Your task to perform on an android device: Open sound settings Image 0: 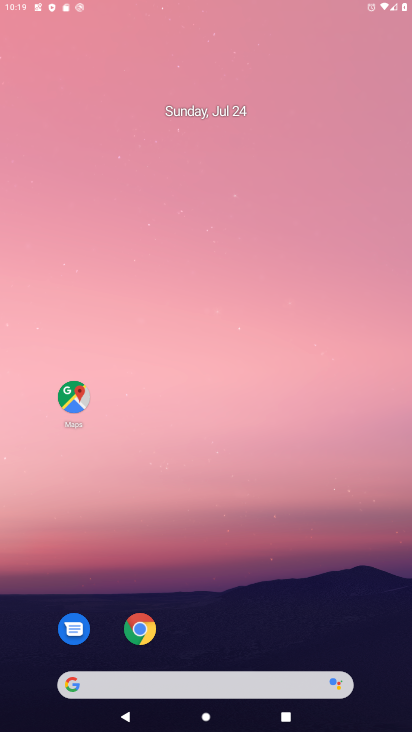
Step 0: press home button
Your task to perform on an android device: Open sound settings Image 1: 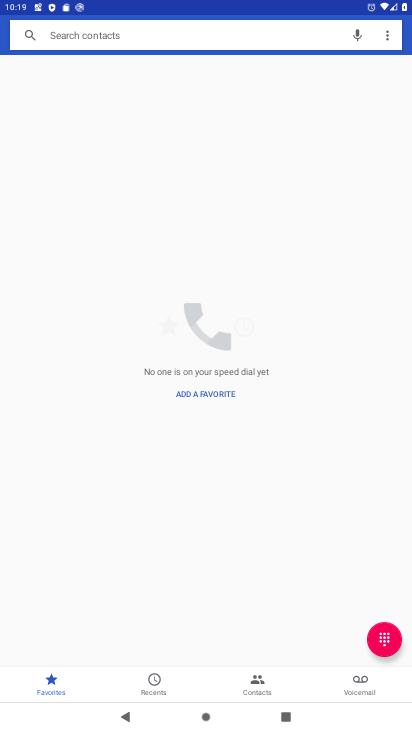
Step 1: drag from (393, 96) to (395, 403)
Your task to perform on an android device: Open sound settings Image 2: 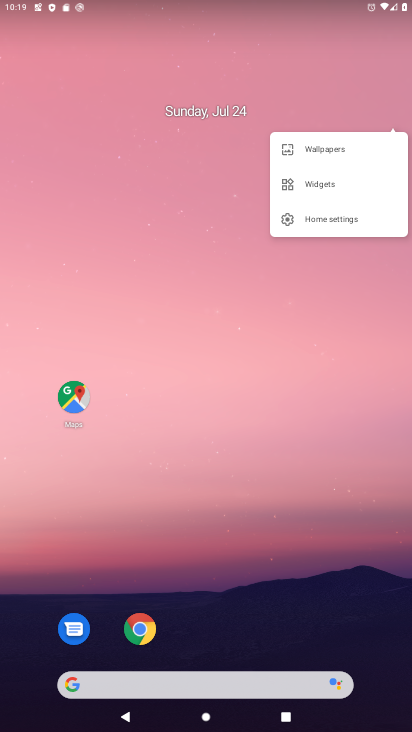
Step 2: drag from (185, 632) to (205, 135)
Your task to perform on an android device: Open sound settings Image 3: 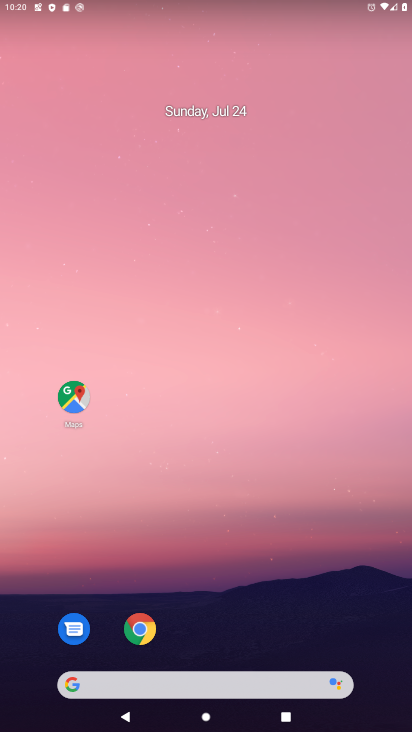
Step 3: drag from (192, 615) to (212, 113)
Your task to perform on an android device: Open sound settings Image 4: 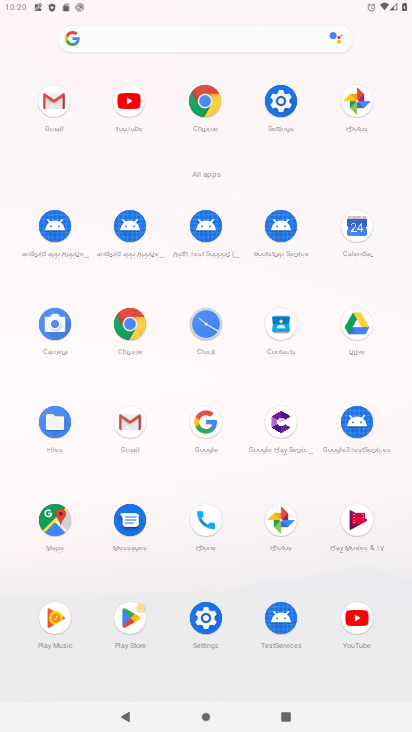
Step 4: click (200, 617)
Your task to perform on an android device: Open sound settings Image 5: 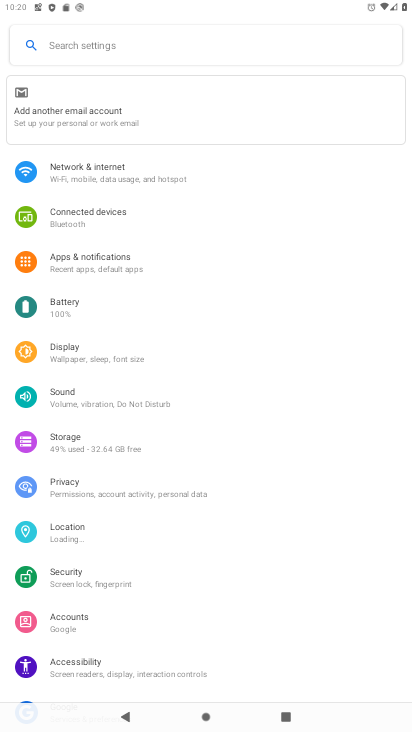
Step 5: click (101, 408)
Your task to perform on an android device: Open sound settings Image 6: 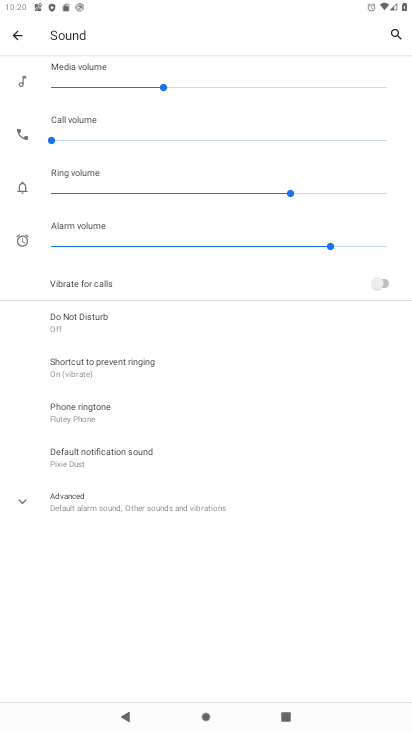
Step 6: task complete